Your task to perform on an android device: Go to settings Image 0: 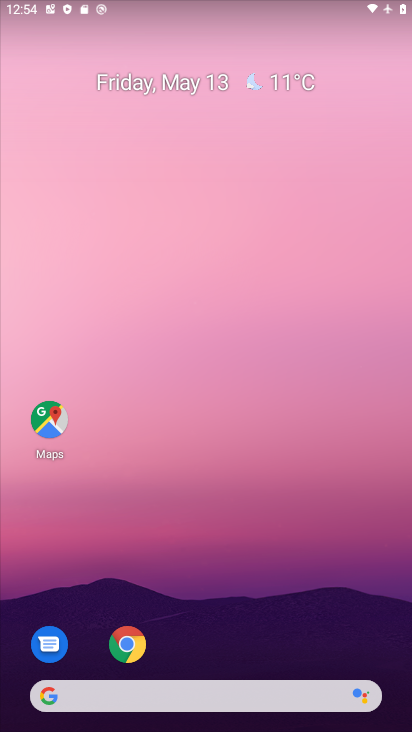
Step 0: drag from (222, 726) to (220, 175)
Your task to perform on an android device: Go to settings Image 1: 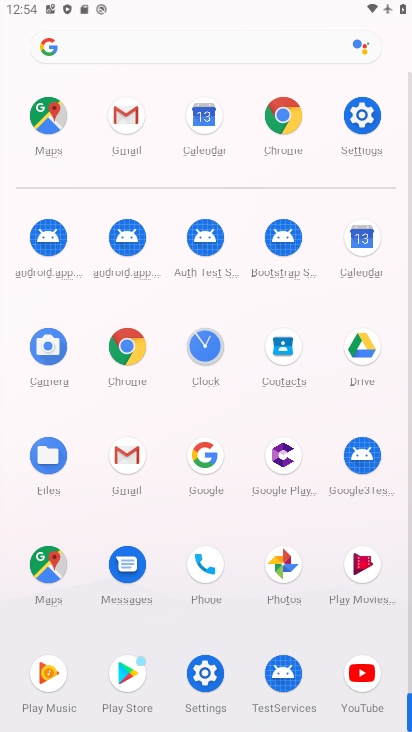
Step 1: click (362, 109)
Your task to perform on an android device: Go to settings Image 2: 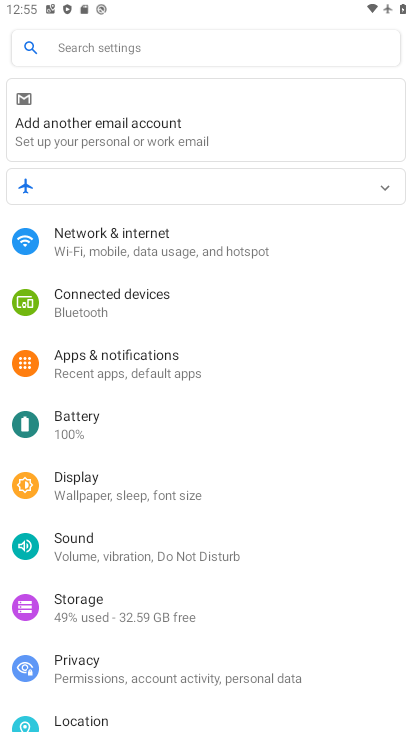
Step 2: task complete